Your task to perform on an android device: see sites visited before in the chrome app Image 0: 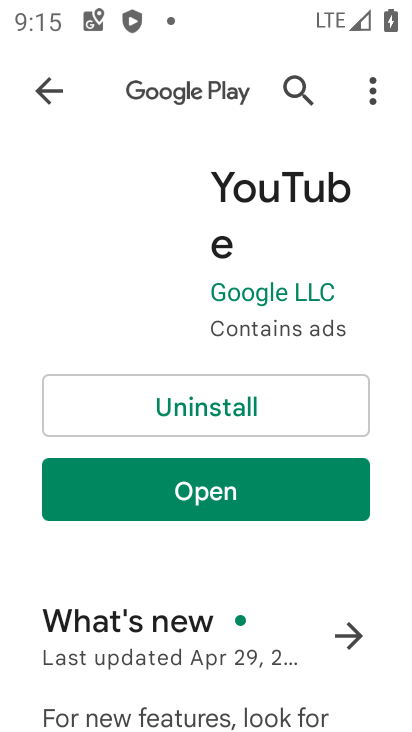
Step 0: click (348, 556)
Your task to perform on an android device: see sites visited before in the chrome app Image 1: 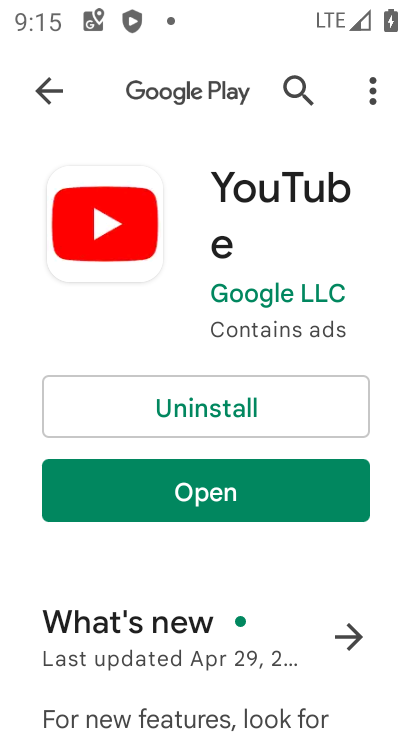
Step 1: press home button
Your task to perform on an android device: see sites visited before in the chrome app Image 2: 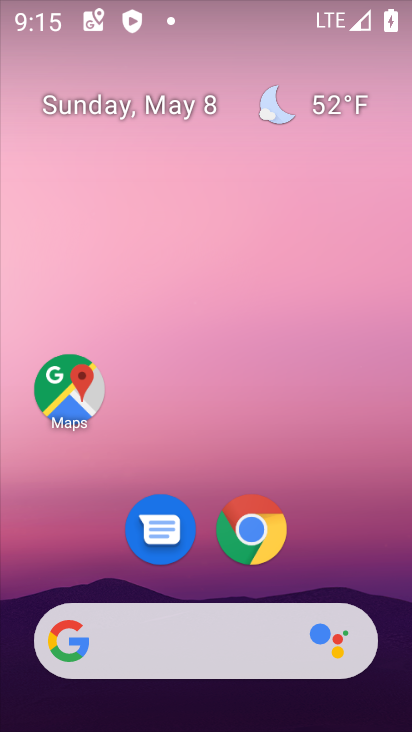
Step 2: drag from (375, 564) to (375, 90)
Your task to perform on an android device: see sites visited before in the chrome app Image 3: 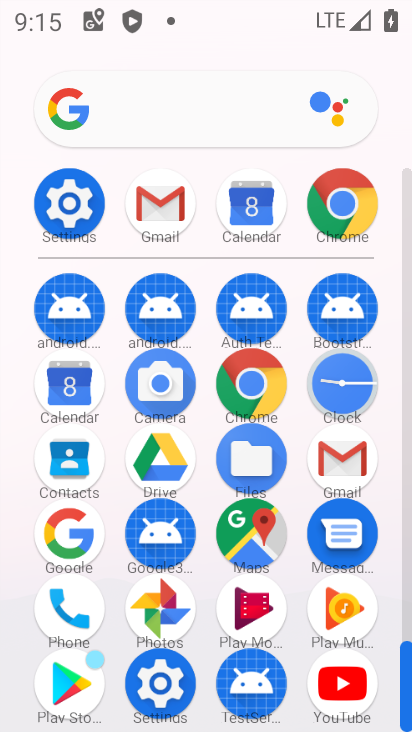
Step 3: click (262, 380)
Your task to perform on an android device: see sites visited before in the chrome app Image 4: 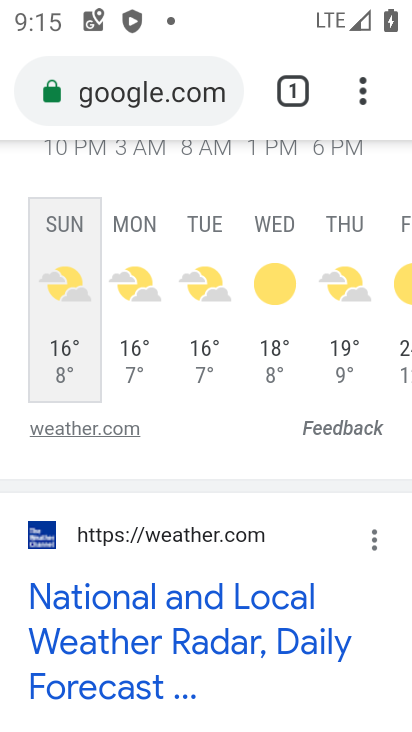
Step 4: task complete